Your task to perform on an android device: turn on the 12-hour format for clock Image 0: 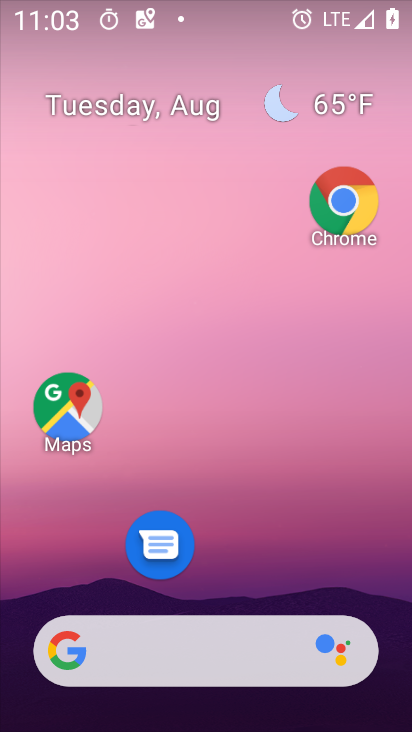
Step 0: drag from (309, 604) to (314, 176)
Your task to perform on an android device: turn on the 12-hour format for clock Image 1: 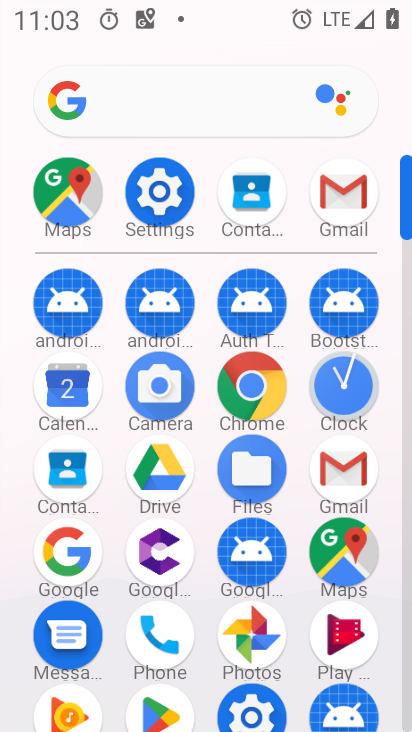
Step 1: click (355, 404)
Your task to perform on an android device: turn on the 12-hour format for clock Image 2: 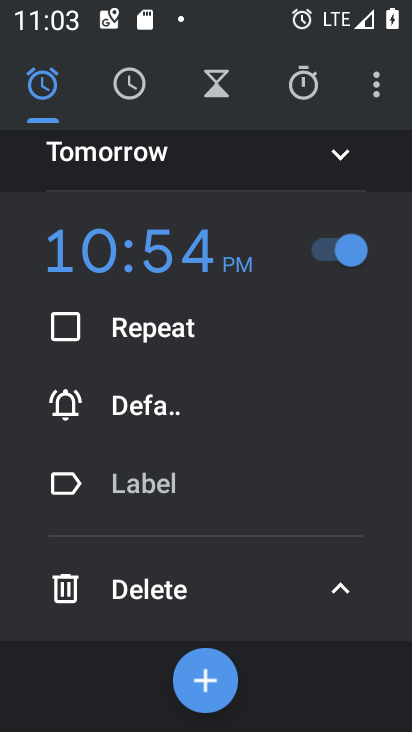
Step 2: click (387, 100)
Your task to perform on an android device: turn on the 12-hour format for clock Image 3: 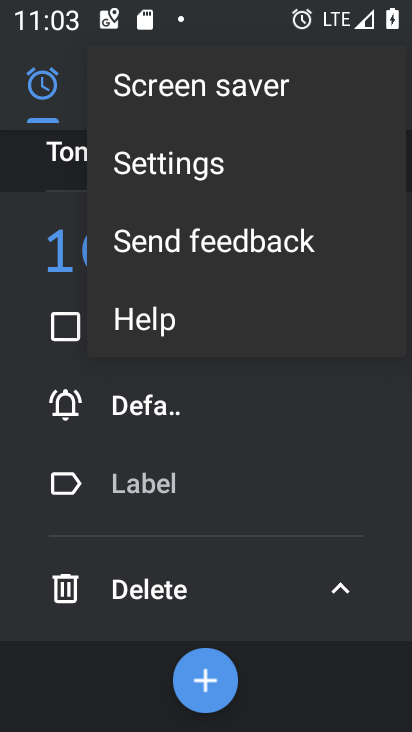
Step 3: click (211, 155)
Your task to perform on an android device: turn on the 12-hour format for clock Image 4: 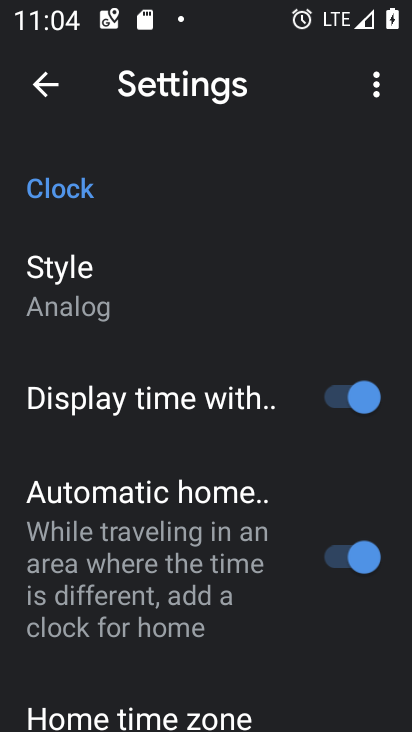
Step 4: drag from (204, 624) to (236, 210)
Your task to perform on an android device: turn on the 12-hour format for clock Image 5: 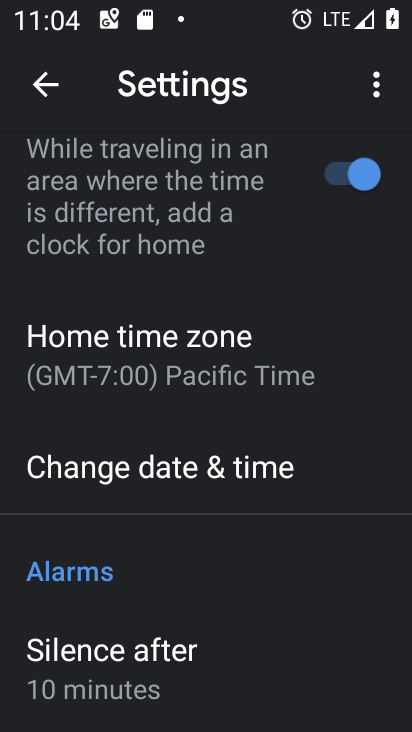
Step 5: click (222, 482)
Your task to perform on an android device: turn on the 12-hour format for clock Image 6: 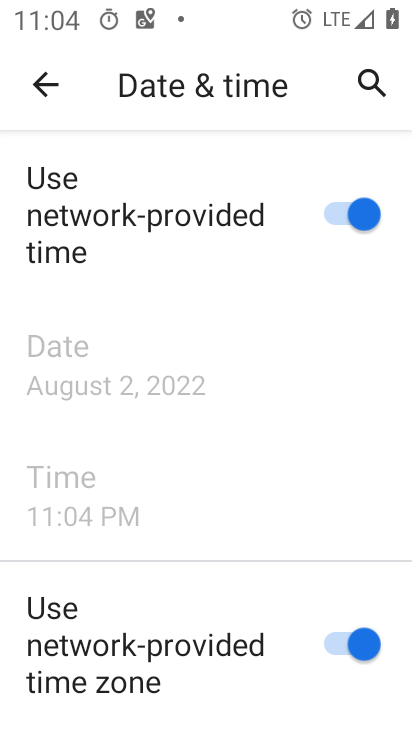
Step 6: task complete